Your task to perform on an android device: Go to Wikipedia Image 0: 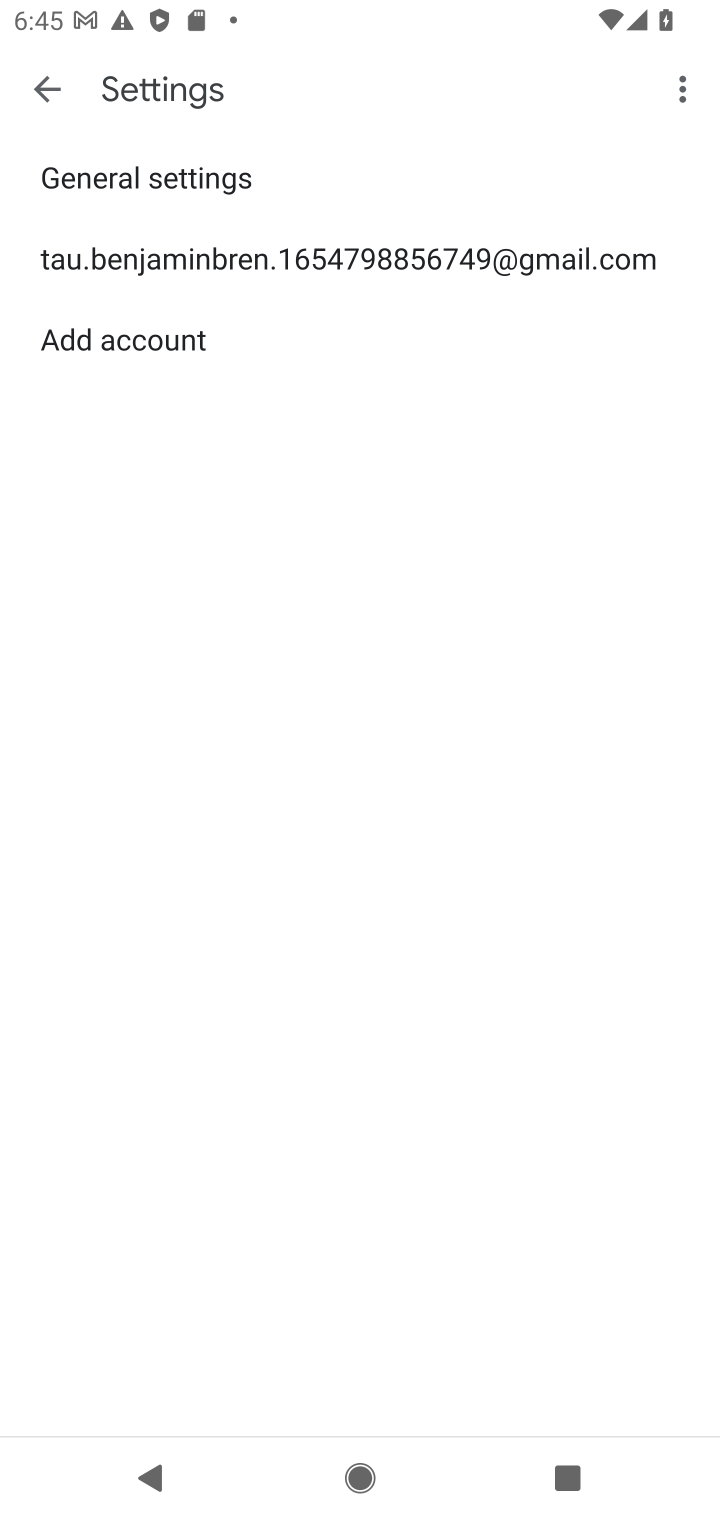
Step 0: press home button
Your task to perform on an android device: Go to Wikipedia Image 1: 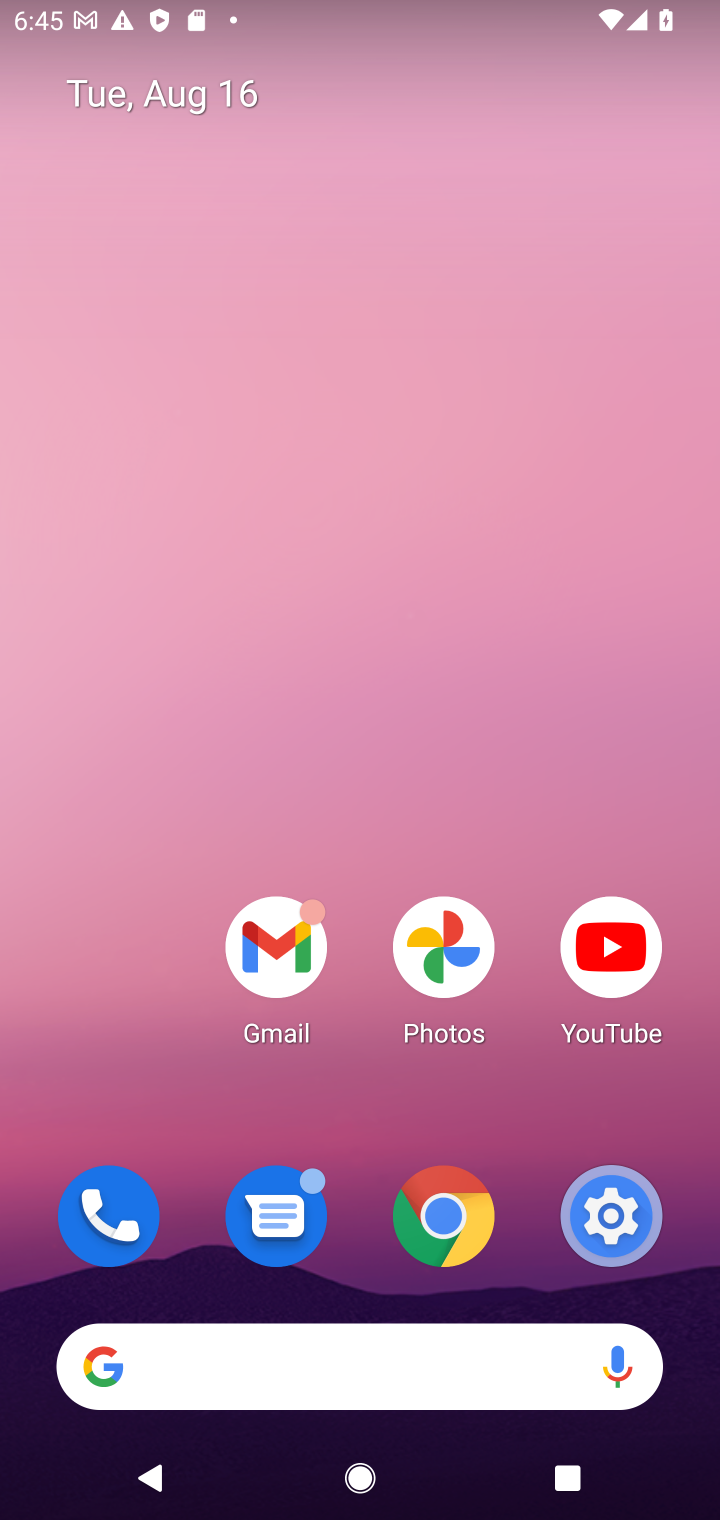
Step 1: drag from (126, 1072) to (105, 215)
Your task to perform on an android device: Go to Wikipedia Image 2: 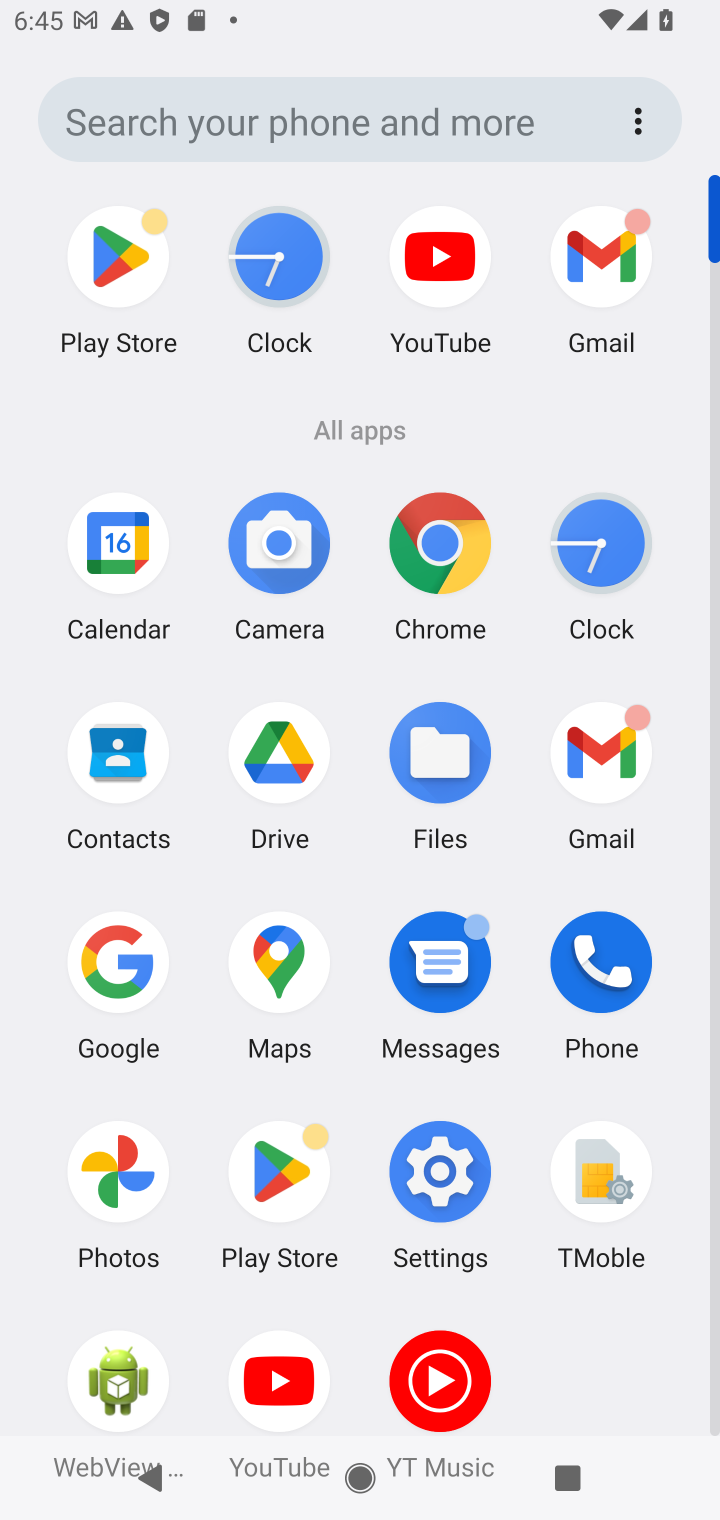
Step 2: click (455, 530)
Your task to perform on an android device: Go to Wikipedia Image 3: 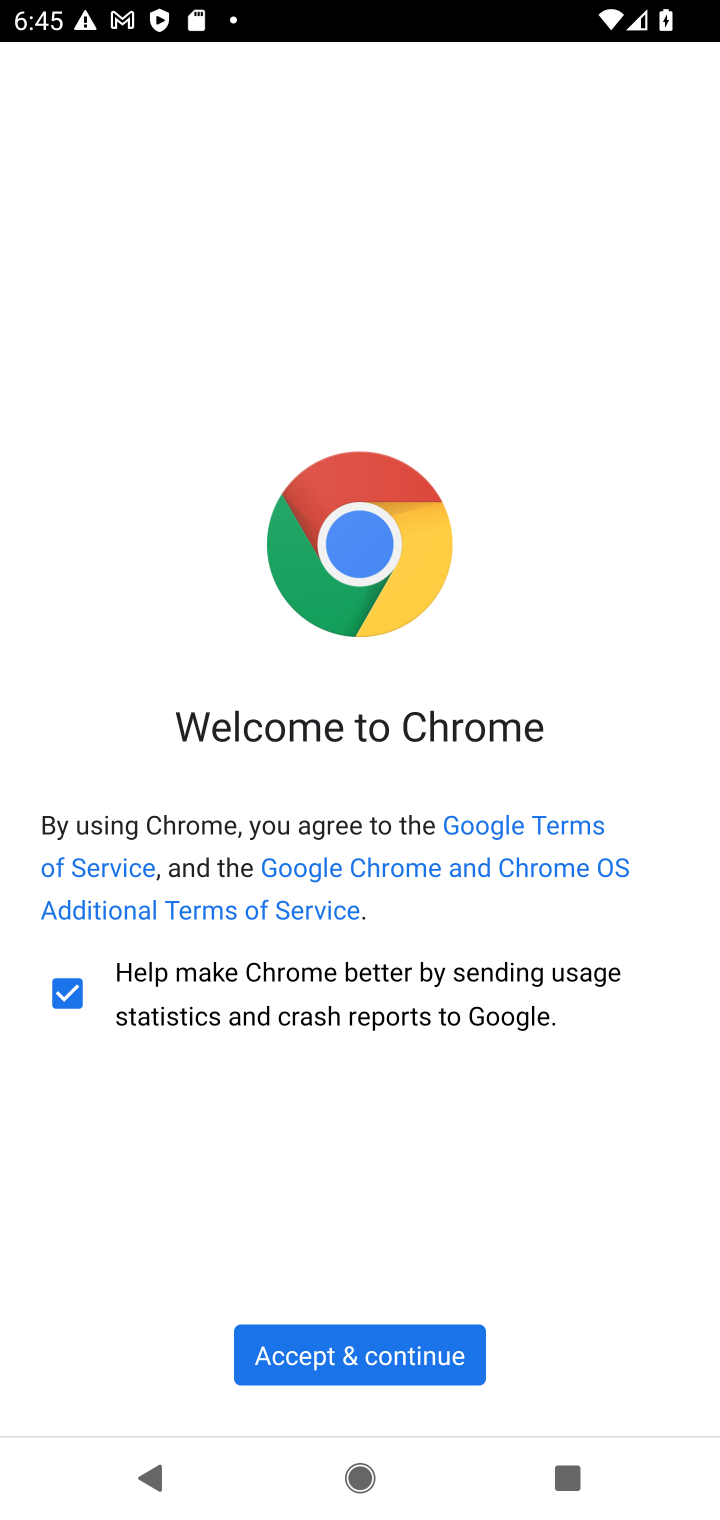
Step 3: click (359, 1361)
Your task to perform on an android device: Go to Wikipedia Image 4: 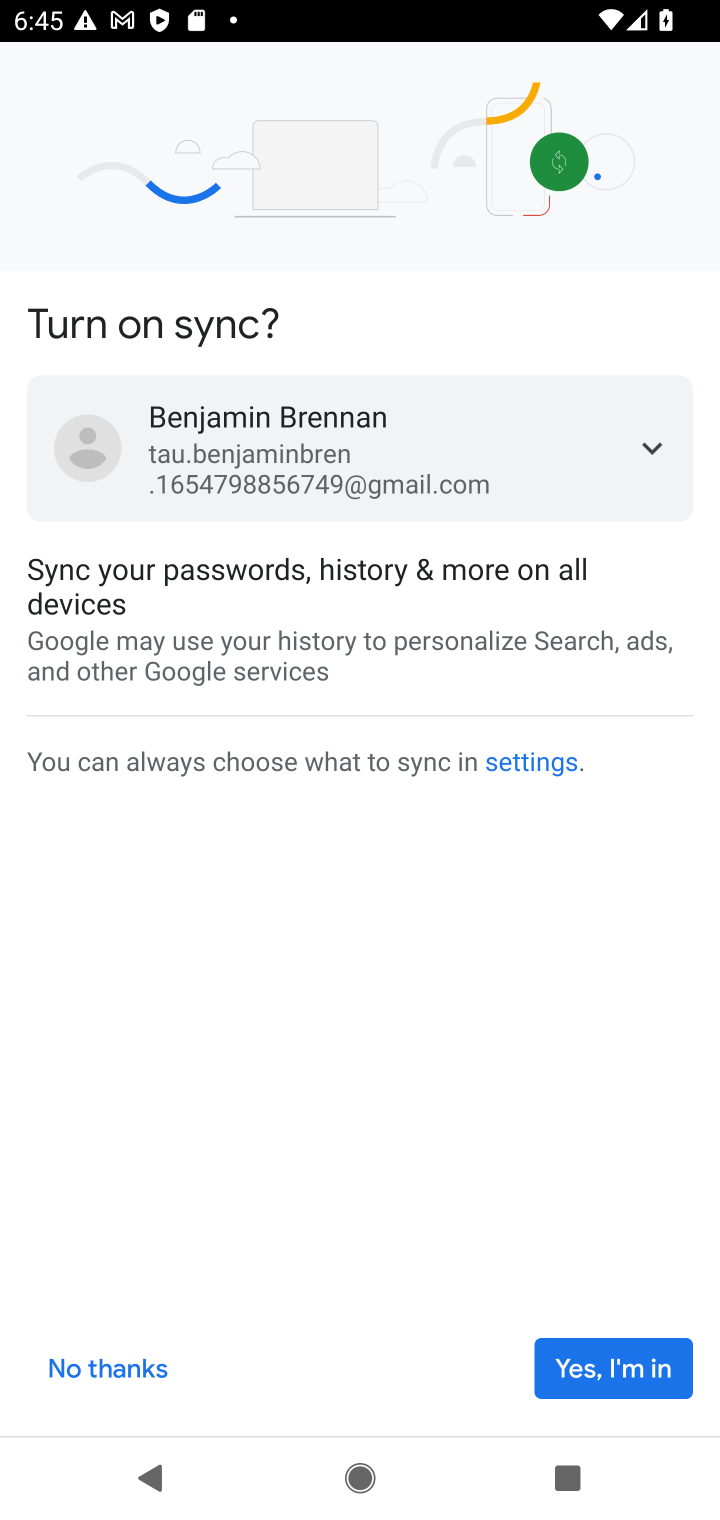
Step 4: click (553, 1364)
Your task to perform on an android device: Go to Wikipedia Image 5: 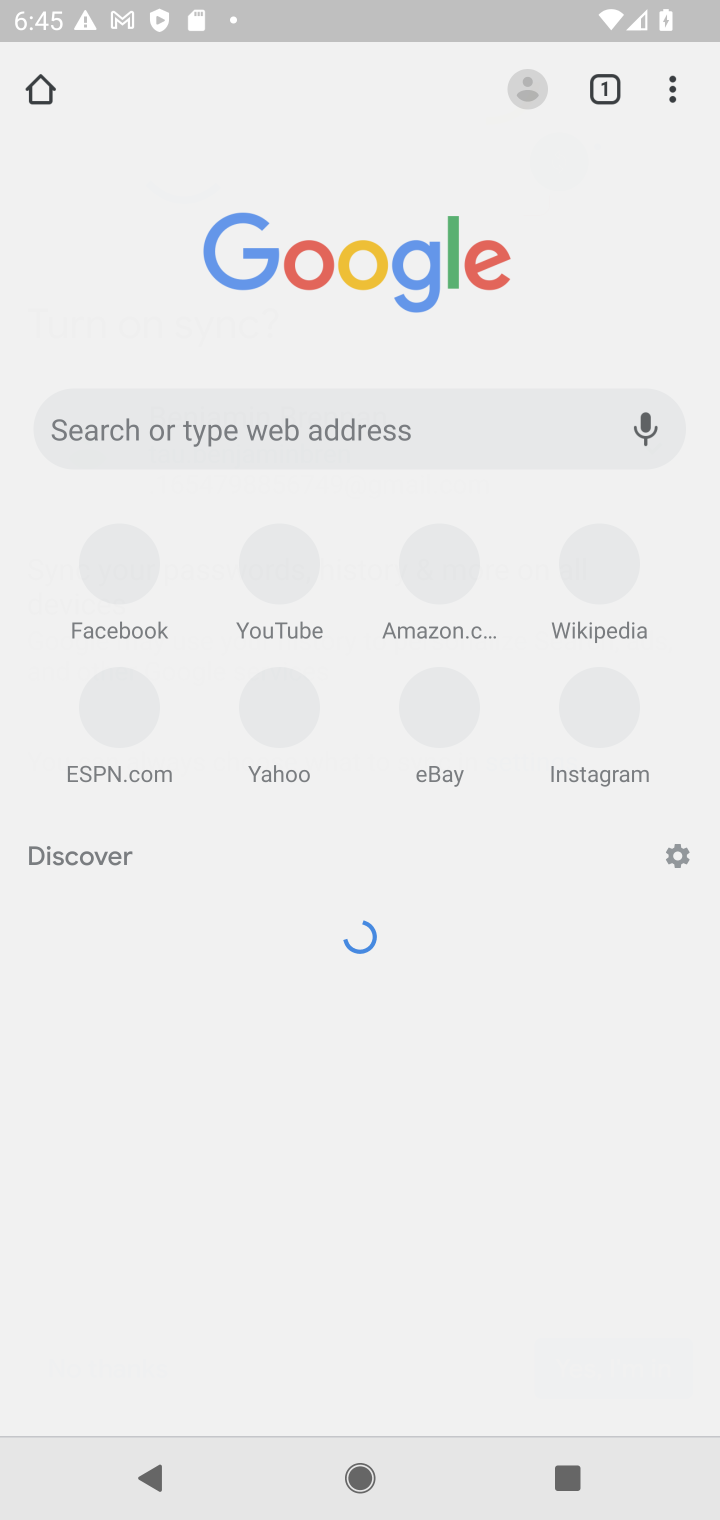
Step 5: click (553, 1364)
Your task to perform on an android device: Go to Wikipedia Image 6: 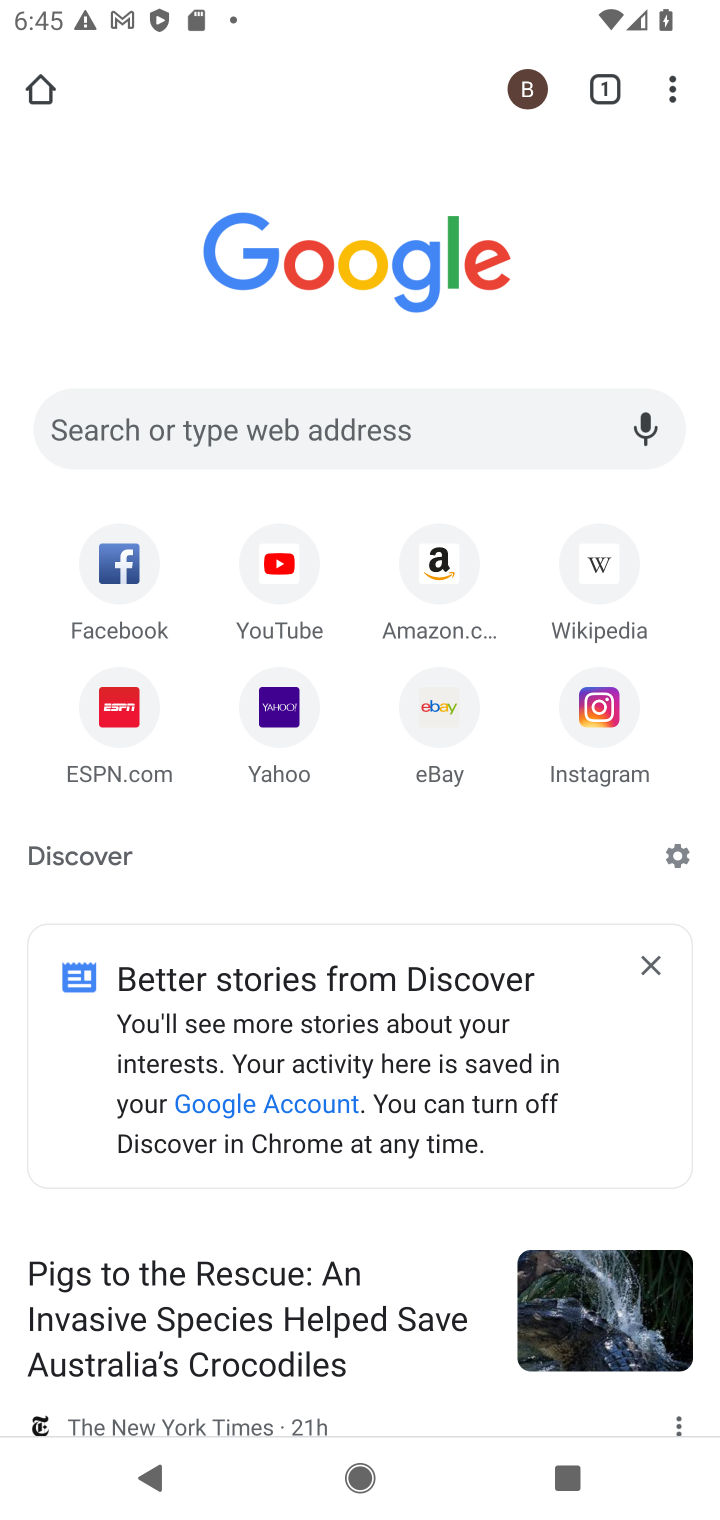
Step 6: click (460, 419)
Your task to perform on an android device: Go to Wikipedia Image 7: 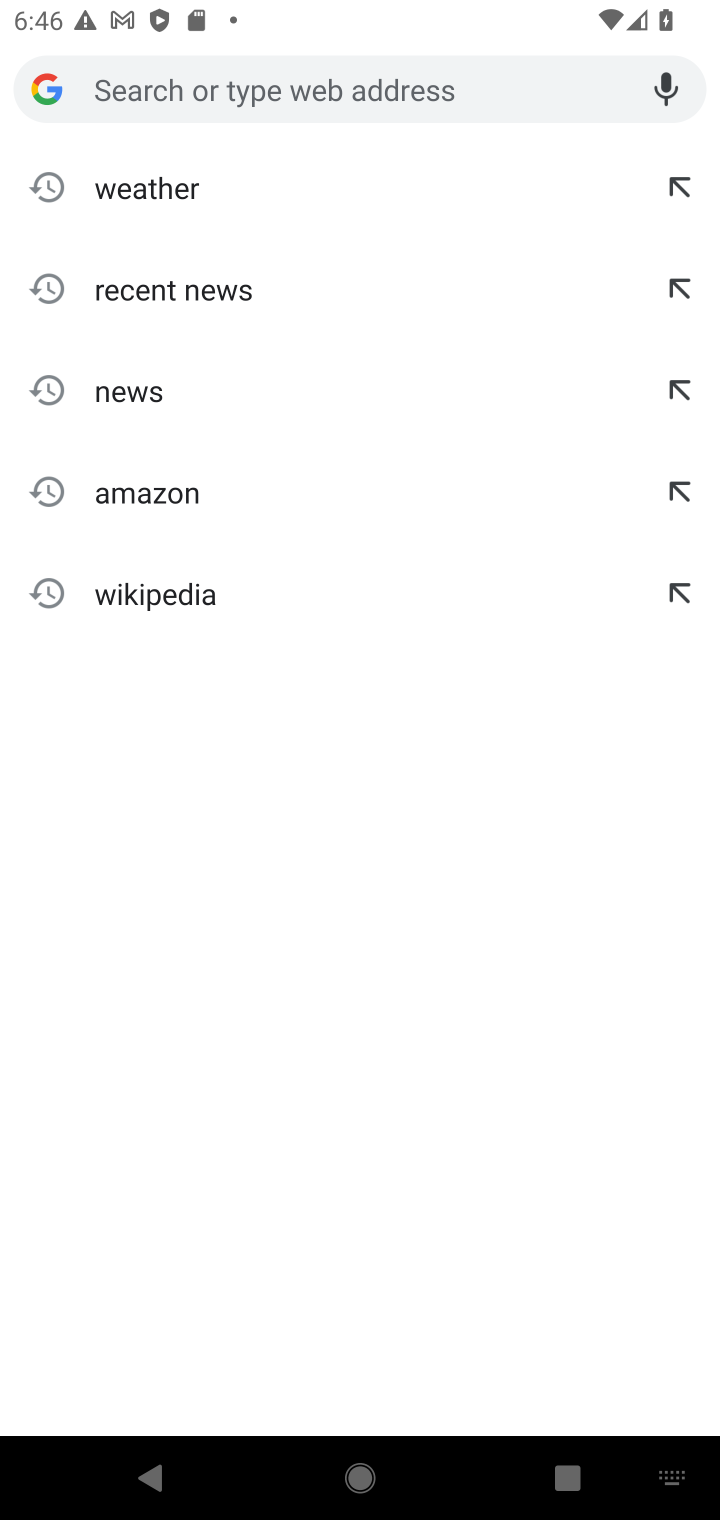
Step 7: type "wikipedia"
Your task to perform on an android device: Go to Wikipedia Image 8: 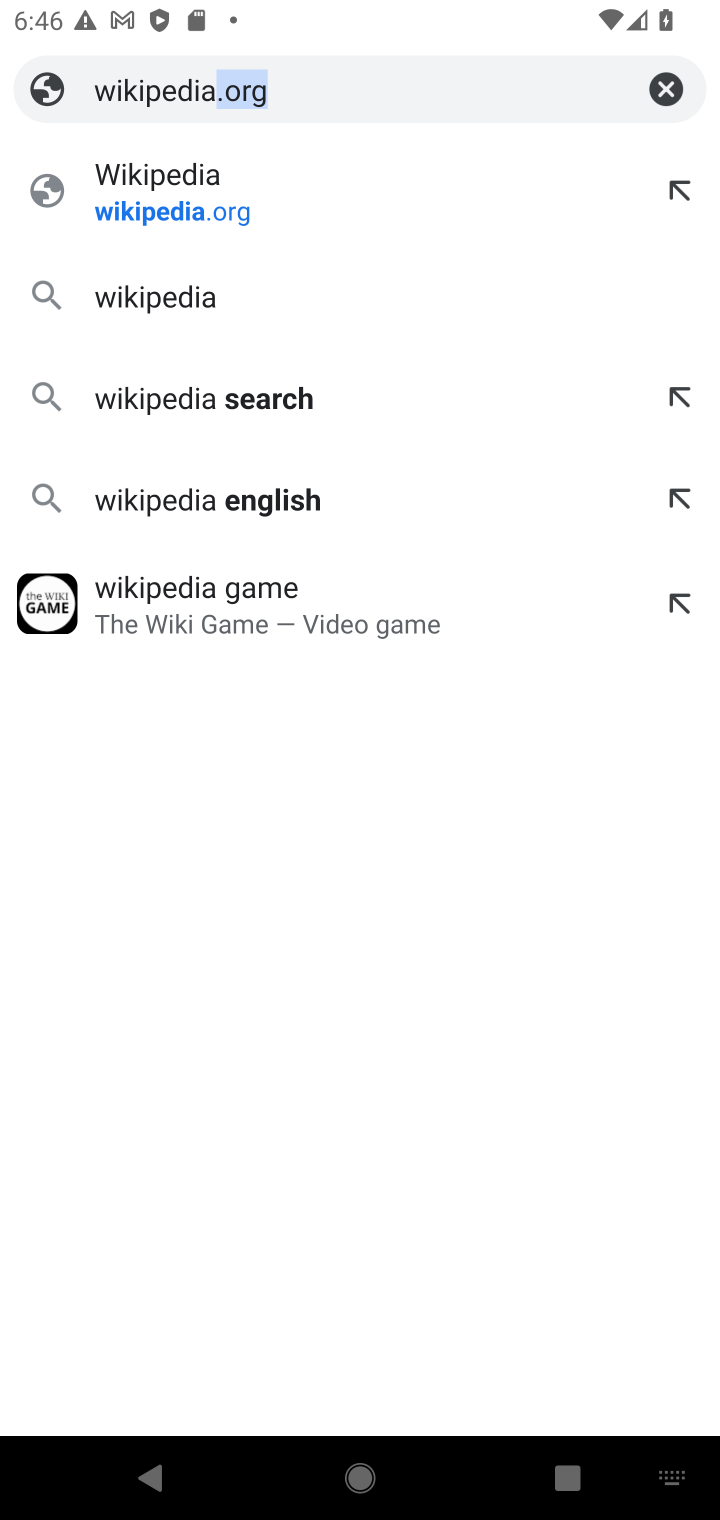
Step 8: click (224, 195)
Your task to perform on an android device: Go to Wikipedia Image 9: 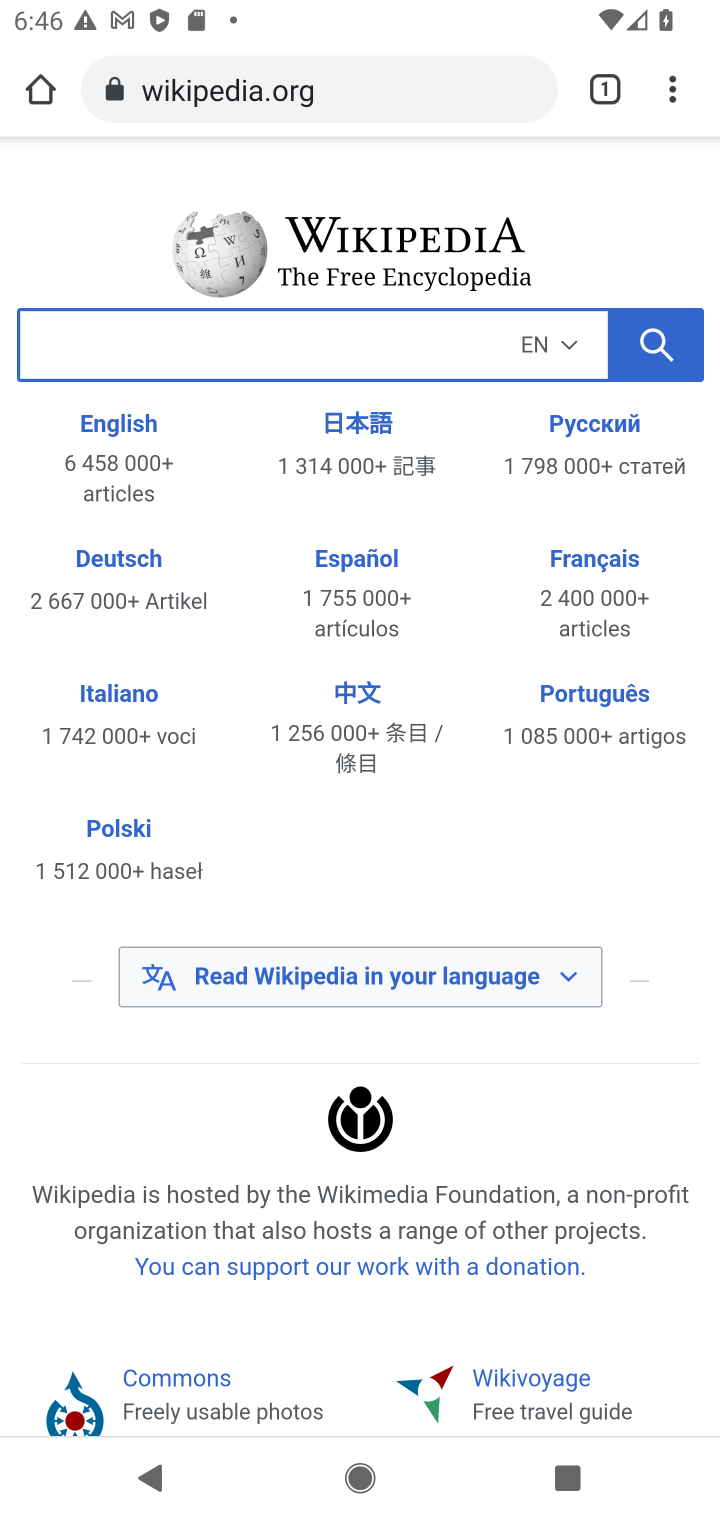
Step 9: task complete